Your task to perform on an android device: visit the assistant section in the google photos Image 0: 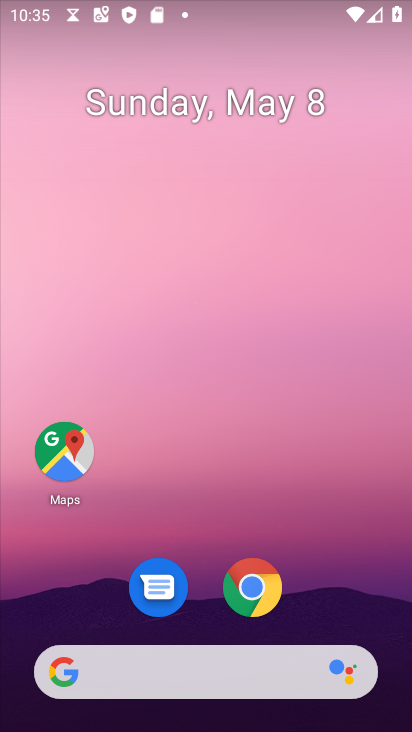
Step 0: drag from (334, 598) to (117, 110)
Your task to perform on an android device: visit the assistant section in the google photos Image 1: 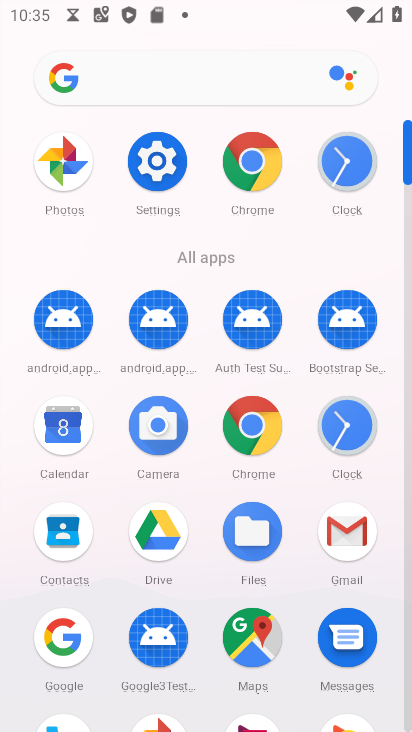
Step 1: click (69, 155)
Your task to perform on an android device: visit the assistant section in the google photos Image 2: 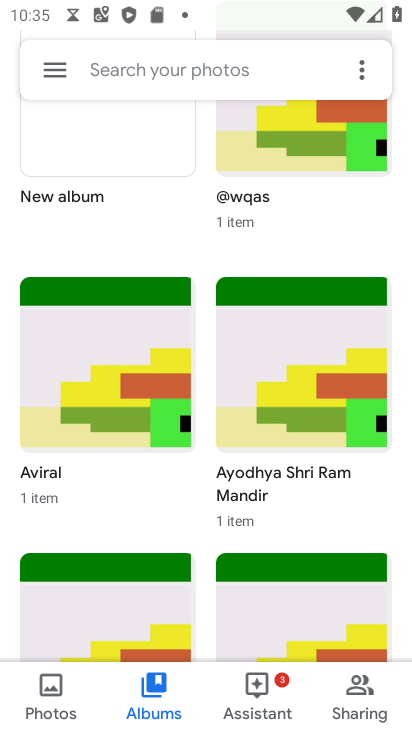
Step 2: click (254, 698)
Your task to perform on an android device: visit the assistant section in the google photos Image 3: 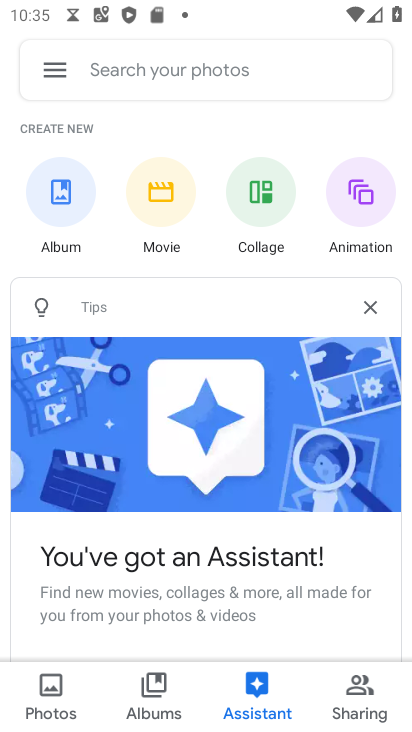
Step 3: task complete